Your task to perform on an android device: Go to privacy settings Image 0: 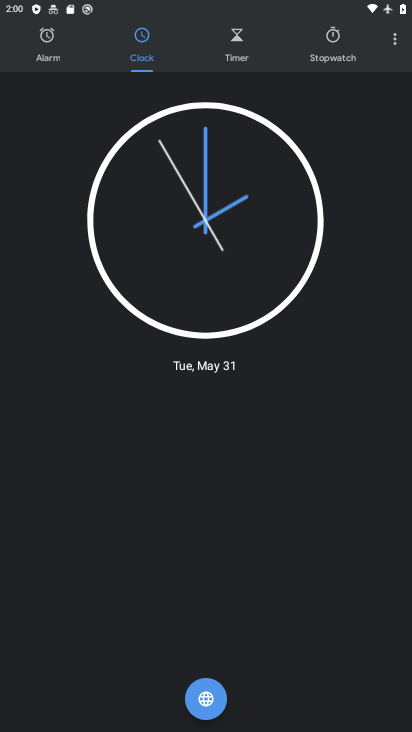
Step 0: press home button
Your task to perform on an android device: Go to privacy settings Image 1: 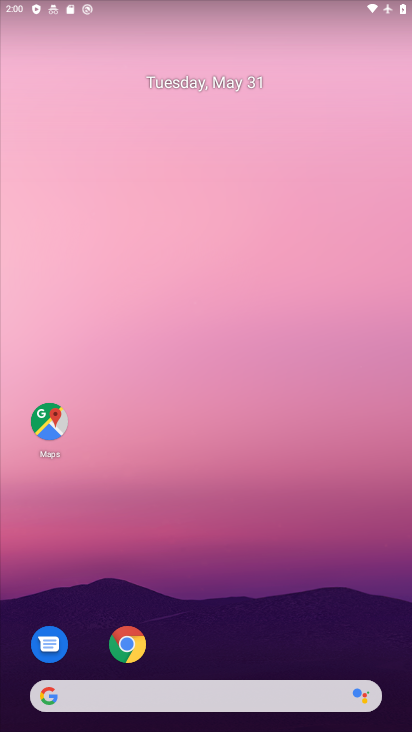
Step 1: drag from (274, 599) to (255, 168)
Your task to perform on an android device: Go to privacy settings Image 2: 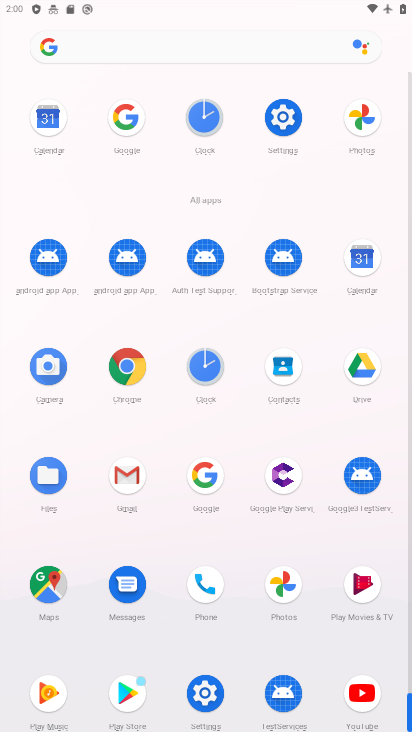
Step 2: click (286, 131)
Your task to perform on an android device: Go to privacy settings Image 3: 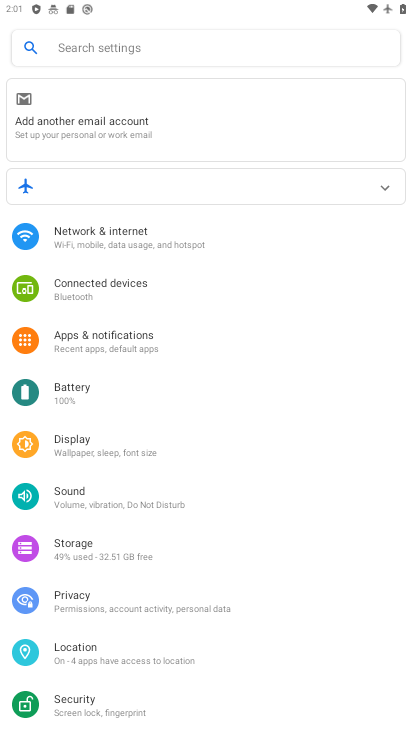
Step 3: click (57, 602)
Your task to perform on an android device: Go to privacy settings Image 4: 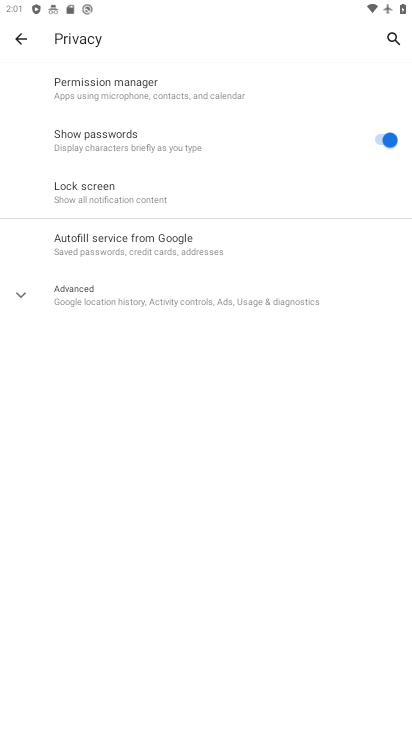
Step 4: task complete